Your task to perform on an android device: open app "Microsoft Outlook" (install if not already installed) and enter user name: "brand@gmail.com" and password: "persuasiveness" Image 0: 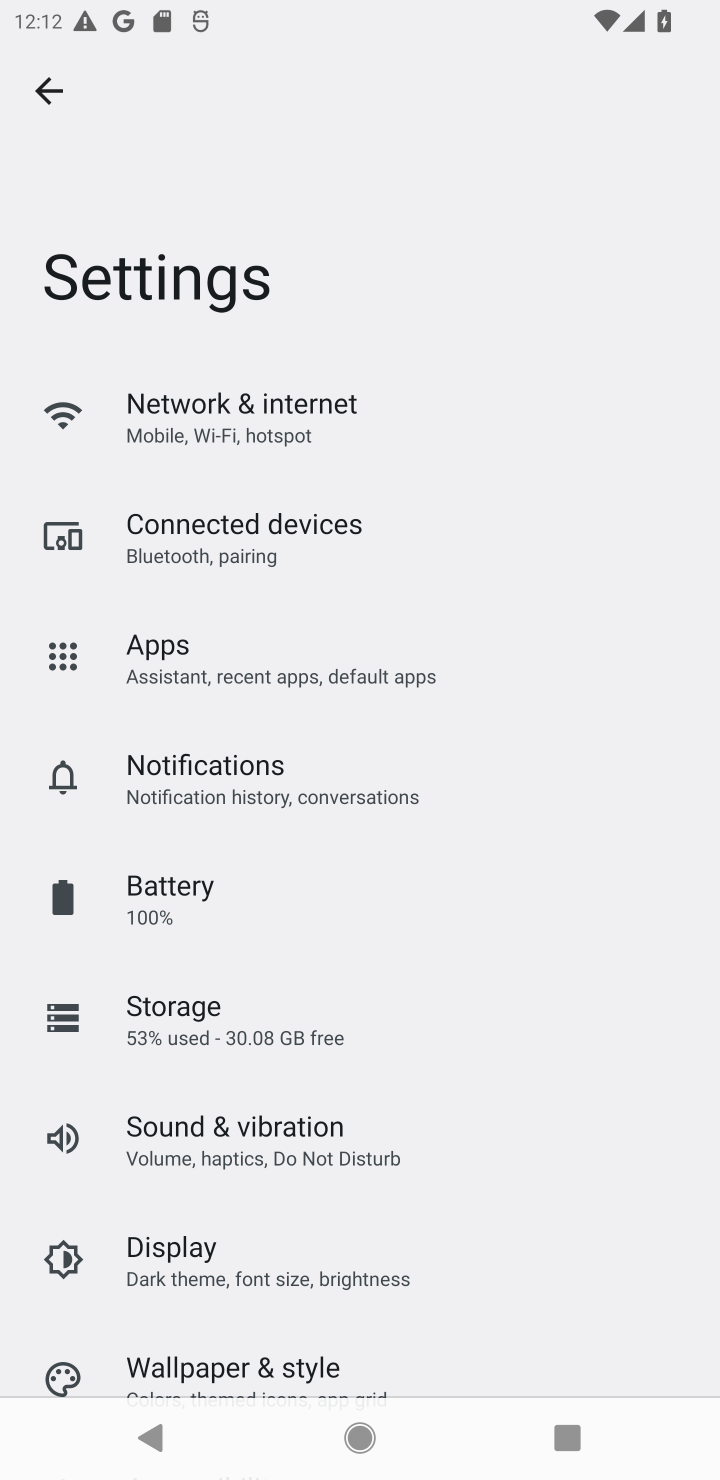
Step 0: press back button
Your task to perform on an android device: open app "Microsoft Outlook" (install if not already installed) and enter user name: "brand@gmail.com" and password: "persuasiveness" Image 1: 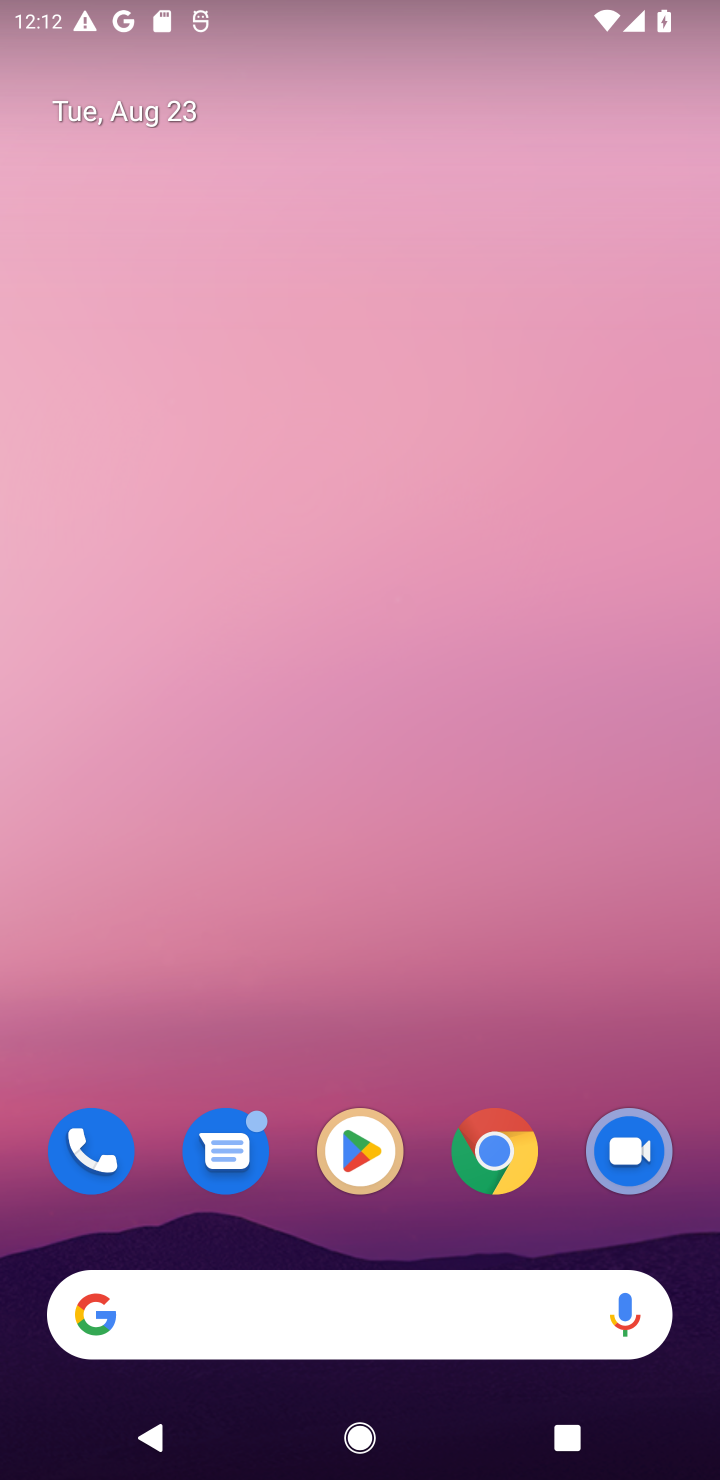
Step 1: click (329, 1163)
Your task to perform on an android device: open app "Microsoft Outlook" (install if not already installed) and enter user name: "brand@gmail.com" and password: "persuasiveness" Image 2: 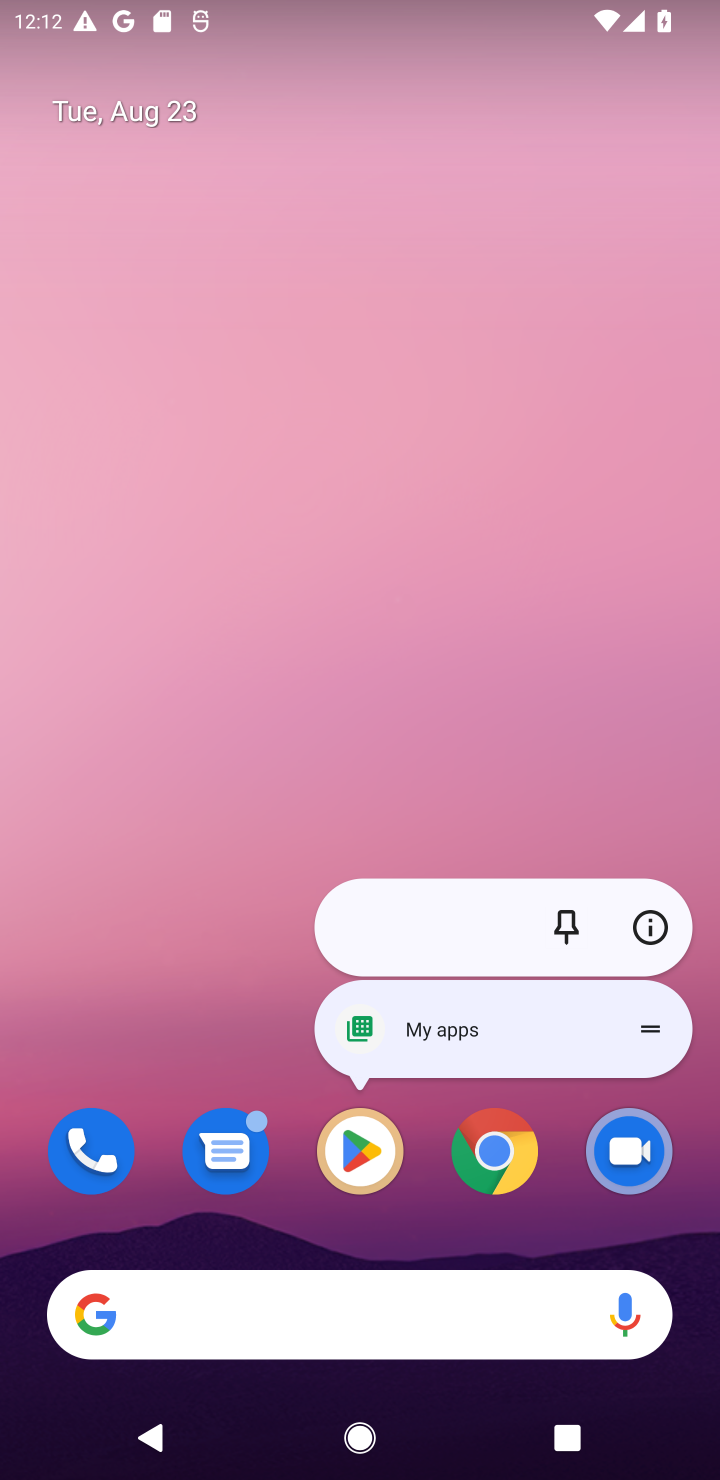
Step 2: click (360, 1165)
Your task to perform on an android device: open app "Microsoft Outlook" (install if not already installed) and enter user name: "brand@gmail.com" and password: "persuasiveness" Image 3: 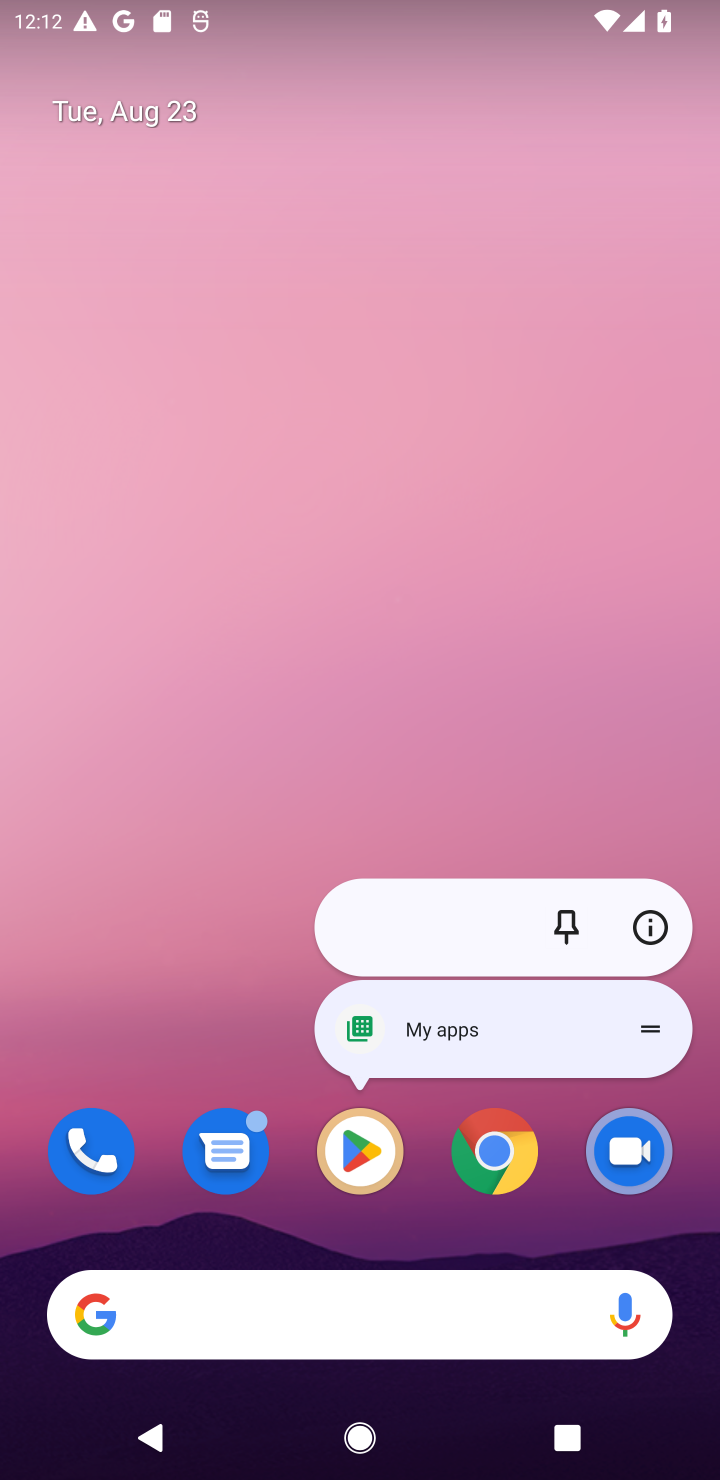
Step 3: click (358, 1160)
Your task to perform on an android device: open app "Microsoft Outlook" (install if not already installed) and enter user name: "brand@gmail.com" and password: "persuasiveness" Image 4: 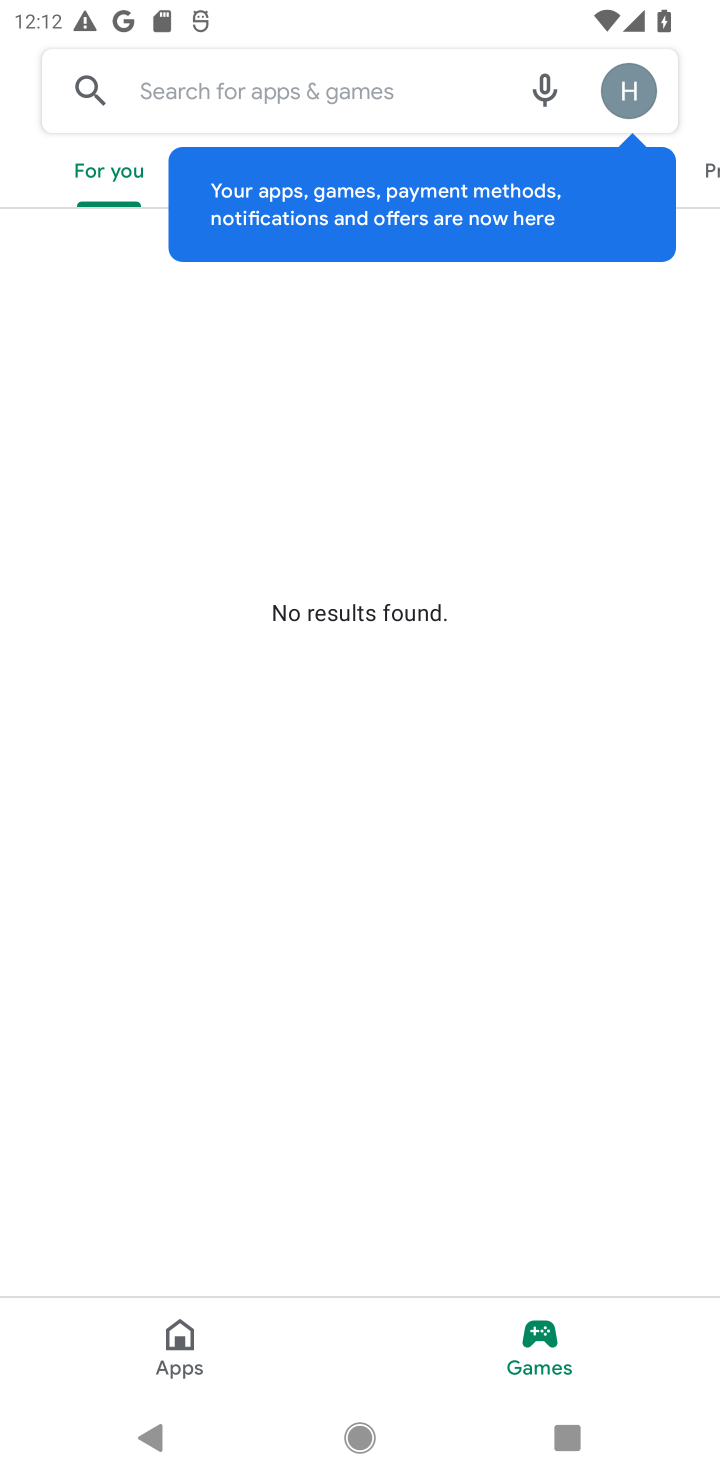
Step 4: click (103, 62)
Your task to perform on an android device: open app "Microsoft Outlook" (install if not already installed) and enter user name: "brand@gmail.com" and password: "persuasiveness" Image 5: 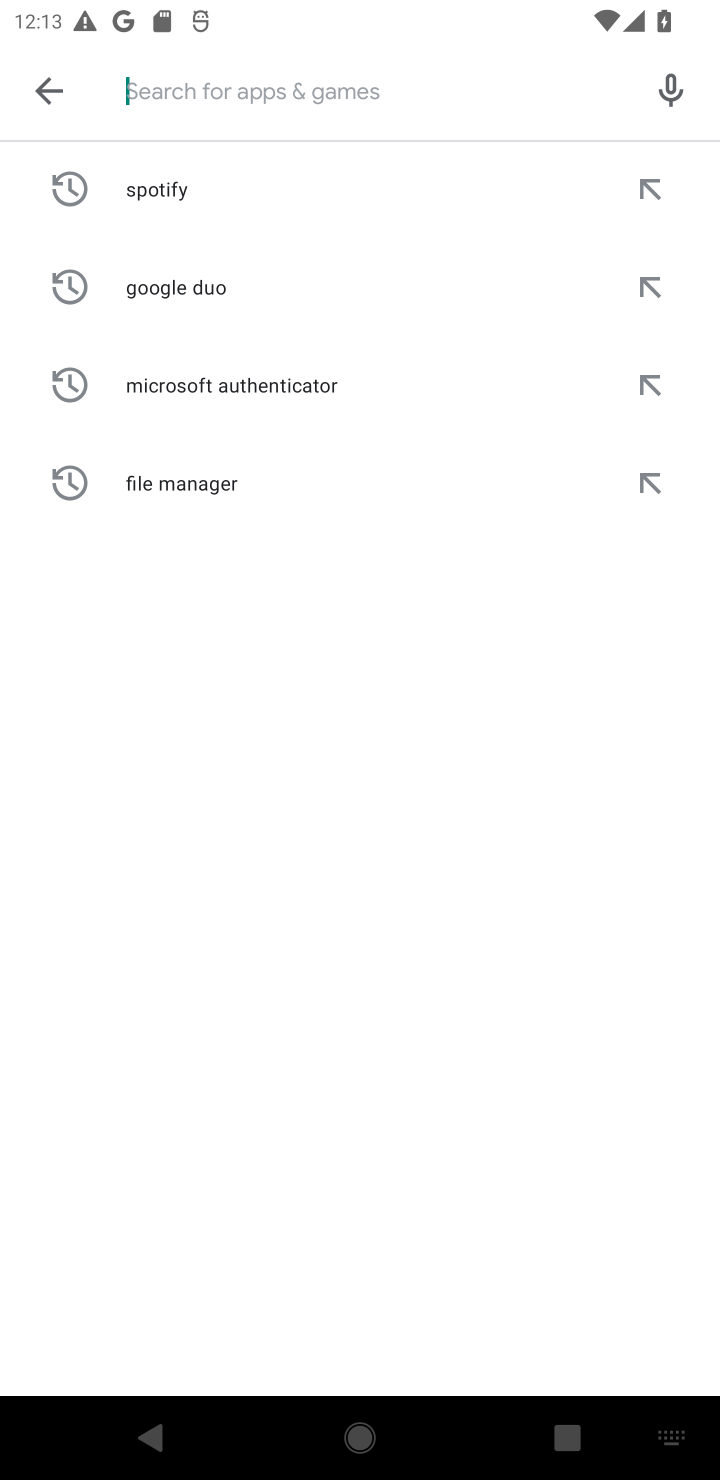
Step 5: type "Microsoft Outlook"
Your task to perform on an android device: open app "Microsoft Outlook" (install if not already installed) and enter user name: "brand@gmail.com" and password: "persuasiveness" Image 6: 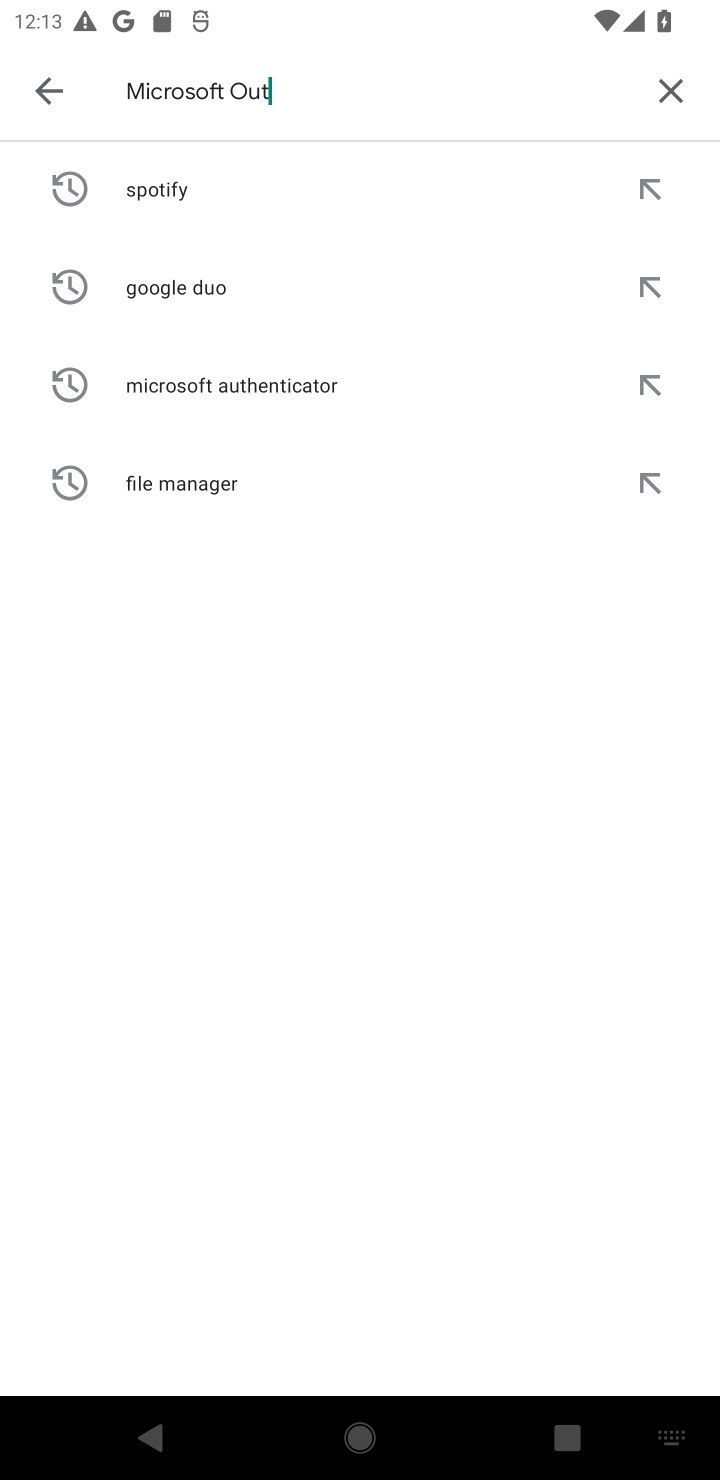
Step 6: type ""
Your task to perform on an android device: open app "Microsoft Outlook" (install if not already installed) and enter user name: "brand@gmail.com" and password: "persuasiveness" Image 7: 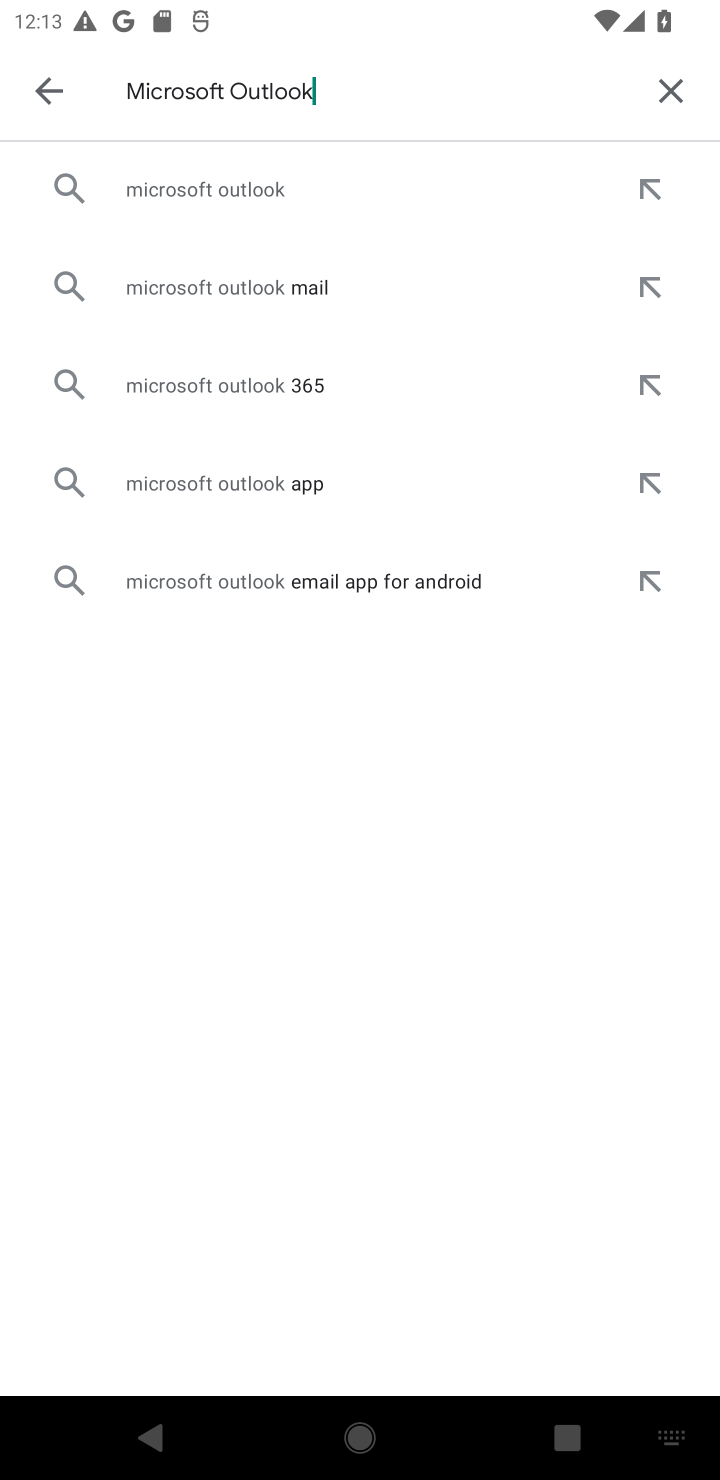
Step 7: click (269, 204)
Your task to perform on an android device: open app "Microsoft Outlook" (install if not already installed) and enter user name: "brand@gmail.com" and password: "persuasiveness" Image 8: 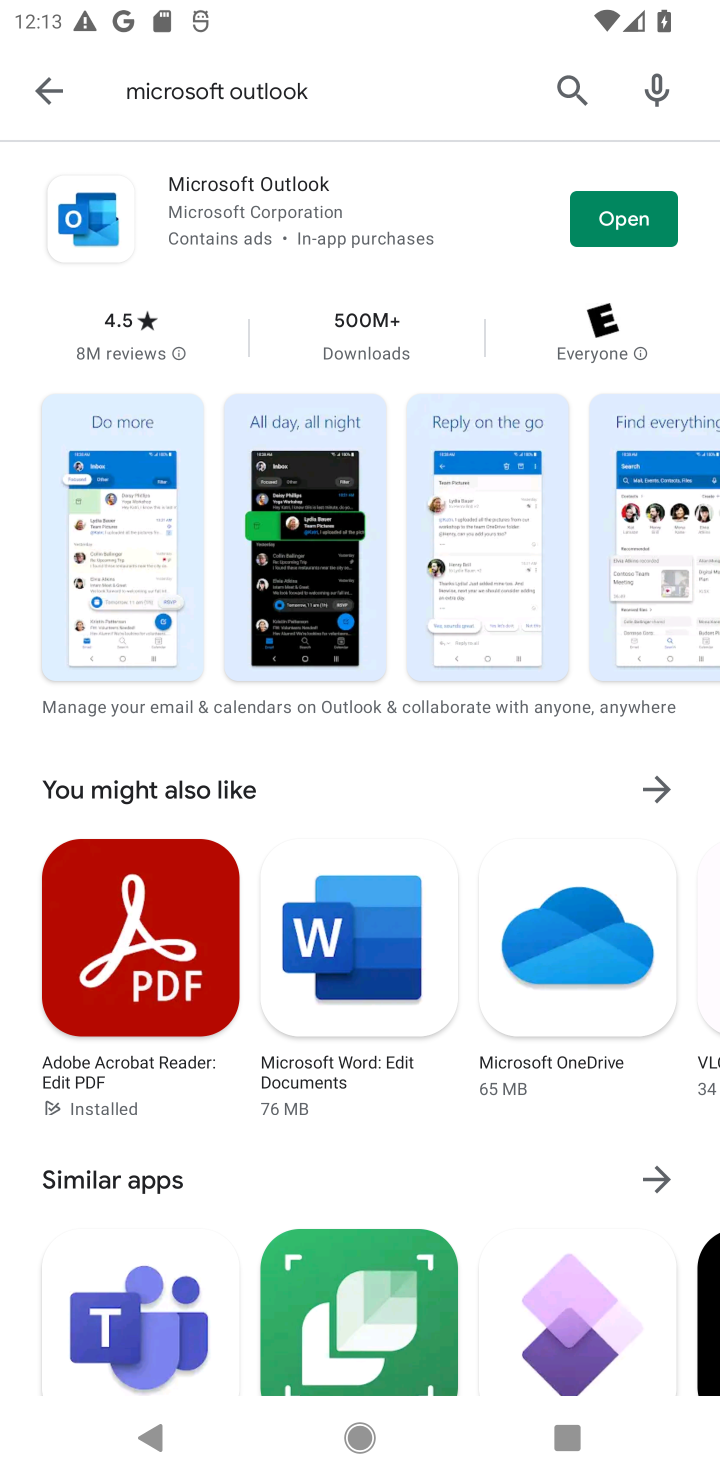
Step 8: click (615, 214)
Your task to perform on an android device: open app "Microsoft Outlook" (install if not already installed) and enter user name: "brand@gmail.com" and password: "persuasiveness" Image 9: 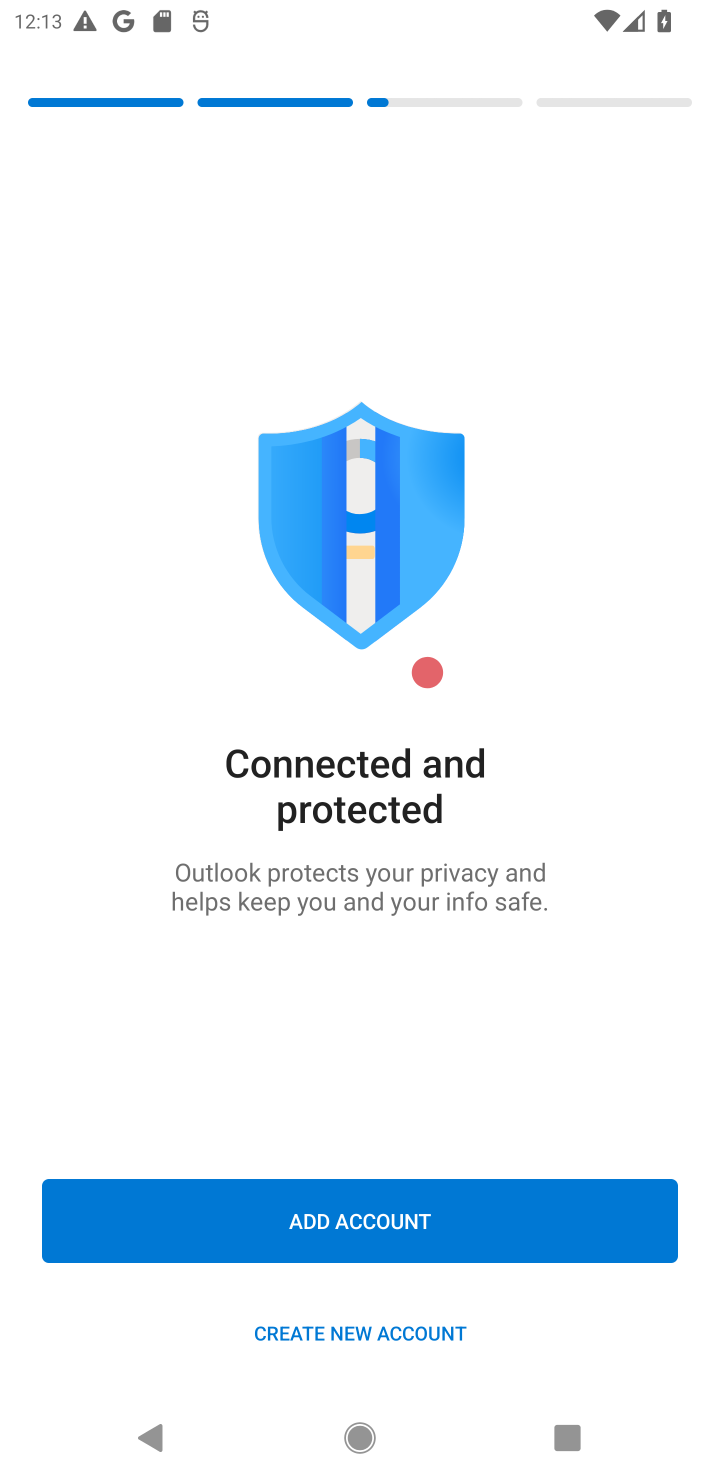
Step 9: task complete